Your task to perform on an android device: change the clock display to digital Image 0: 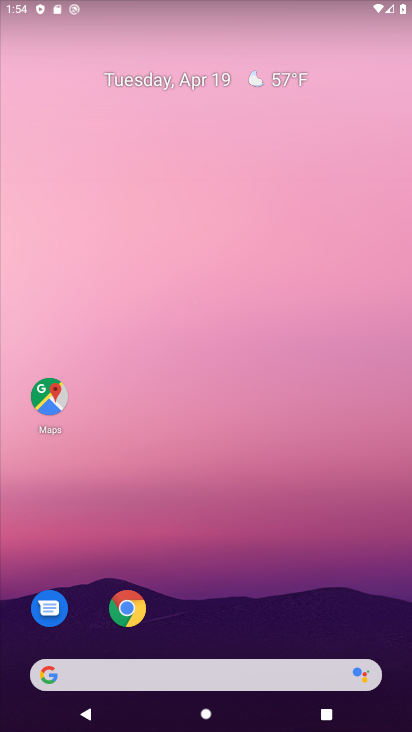
Step 0: drag from (254, 638) to (321, 86)
Your task to perform on an android device: change the clock display to digital Image 1: 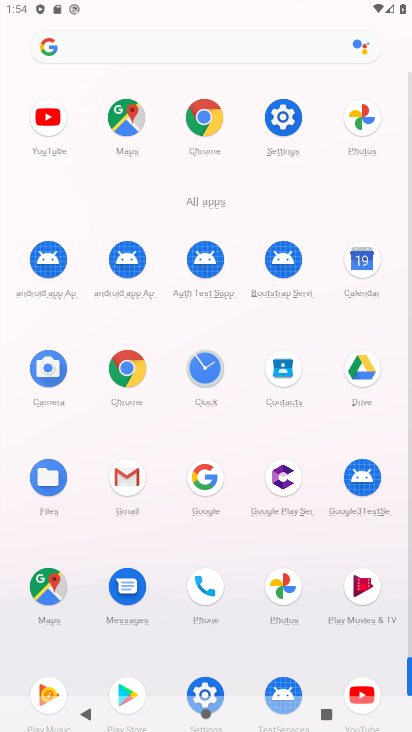
Step 1: click (208, 378)
Your task to perform on an android device: change the clock display to digital Image 2: 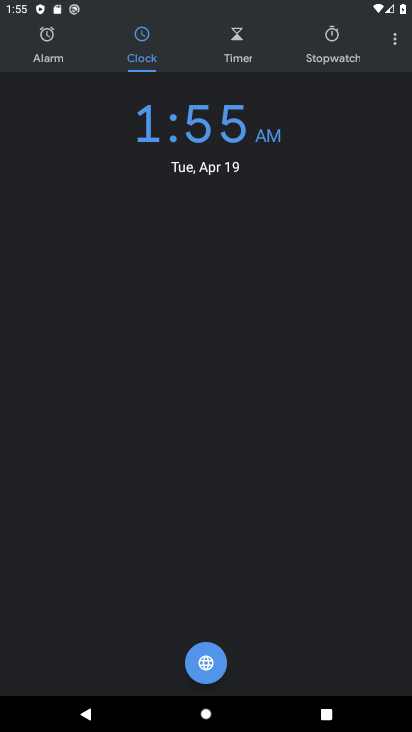
Step 2: click (389, 47)
Your task to perform on an android device: change the clock display to digital Image 3: 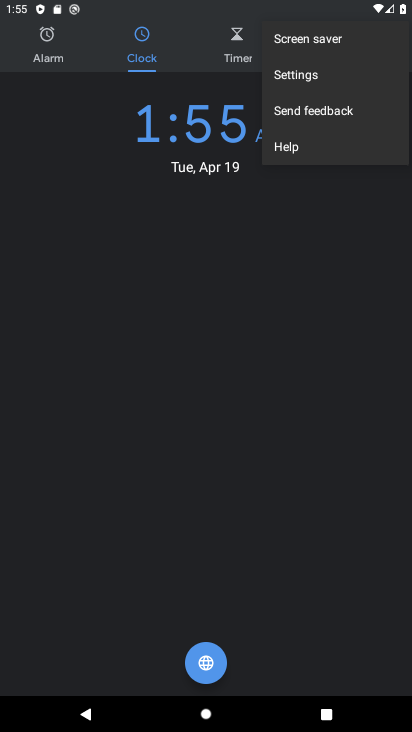
Step 3: click (305, 75)
Your task to perform on an android device: change the clock display to digital Image 4: 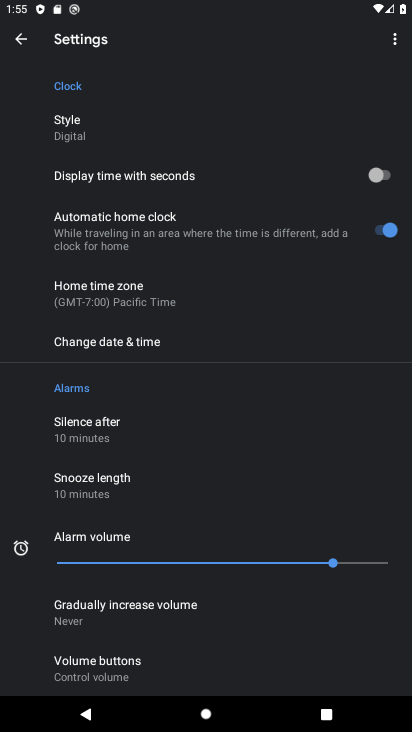
Step 4: task complete